Your task to perform on an android device: add a contact in the contacts app Image 0: 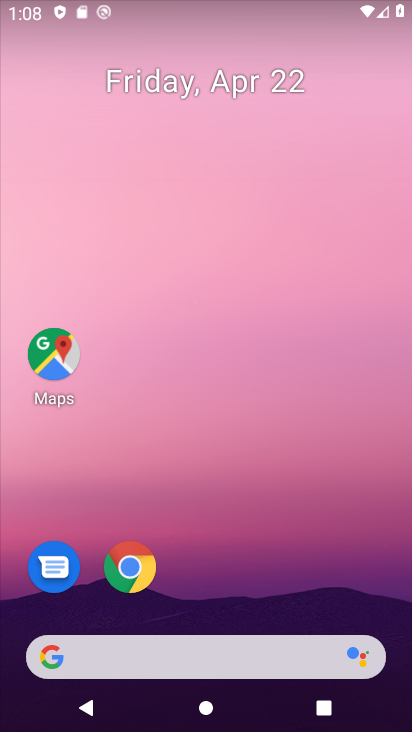
Step 0: drag from (244, 560) to (246, 104)
Your task to perform on an android device: add a contact in the contacts app Image 1: 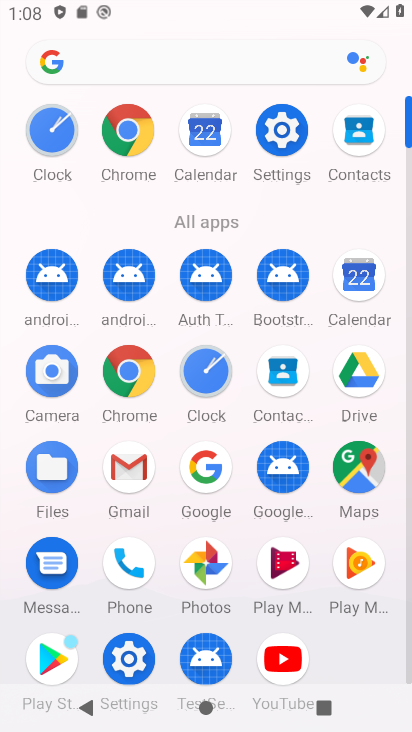
Step 1: click (283, 368)
Your task to perform on an android device: add a contact in the contacts app Image 2: 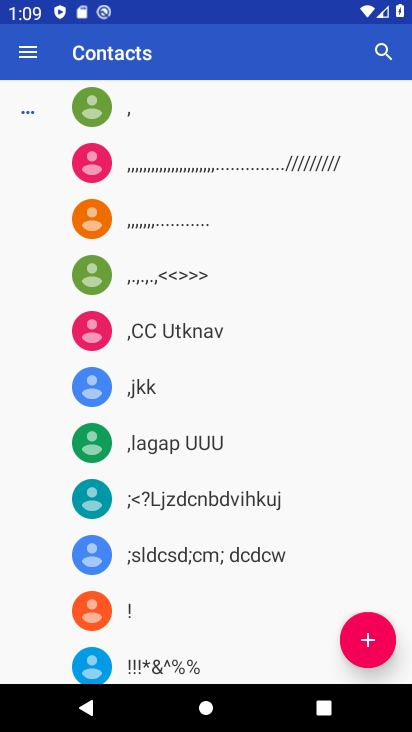
Step 2: click (369, 632)
Your task to perform on an android device: add a contact in the contacts app Image 3: 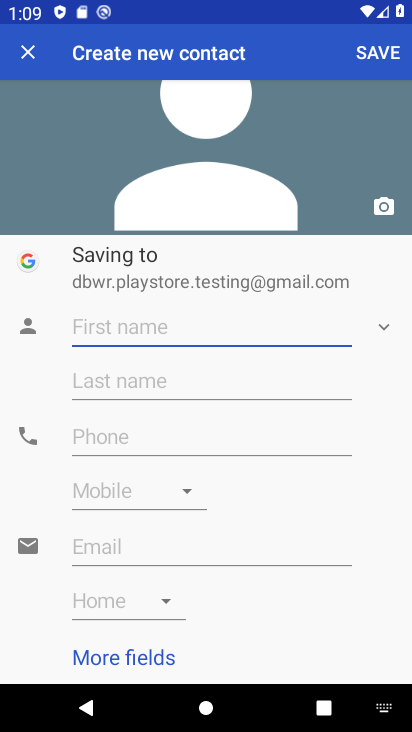
Step 3: click (149, 326)
Your task to perform on an android device: add a contact in the contacts app Image 4: 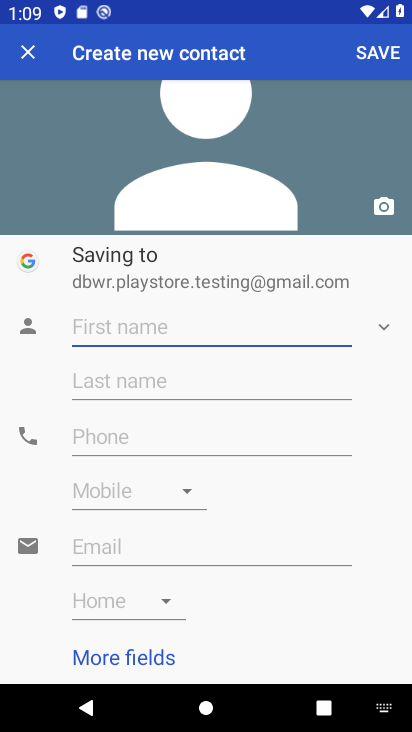
Step 4: type "sdafghjkl"
Your task to perform on an android device: add a contact in the contacts app Image 5: 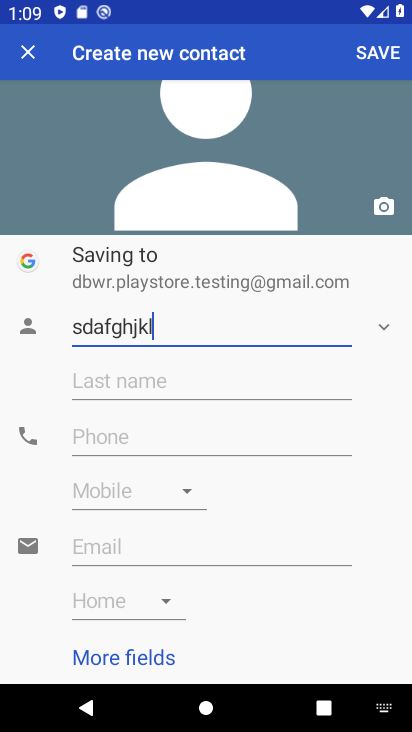
Step 5: click (143, 437)
Your task to perform on an android device: add a contact in the contacts app Image 6: 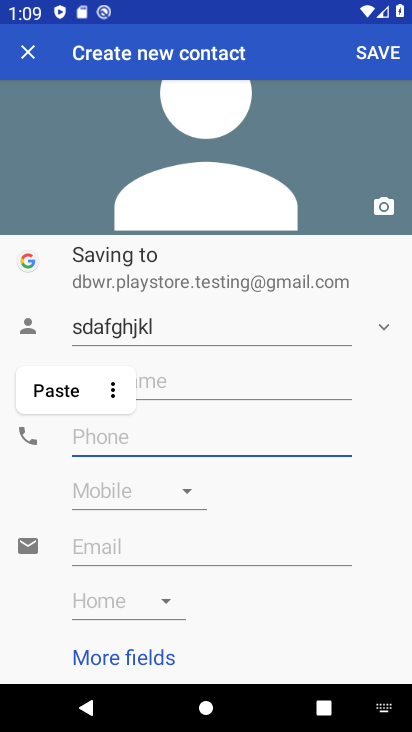
Step 6: type "2123456789"
Your task to perform on an android device: add a contact in the contacts app Image 7: 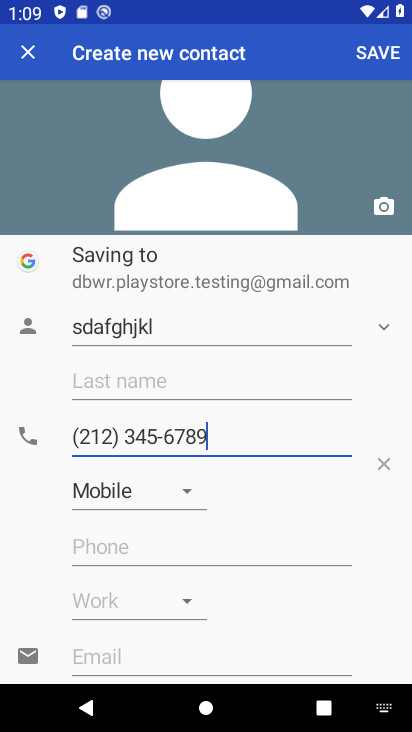
Step 7: click (381, 43)
Your task to perform on an android device: add a contact in the contacts app Image 8: 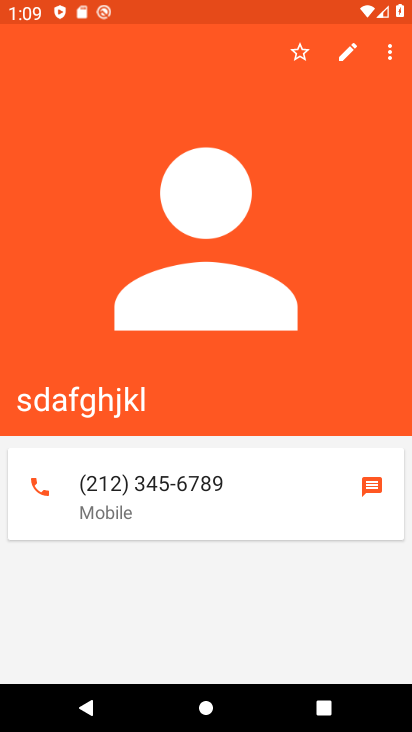
Step 8: task complete